Your task to perform on an android device: Do I have any events this weekend? Image 0: 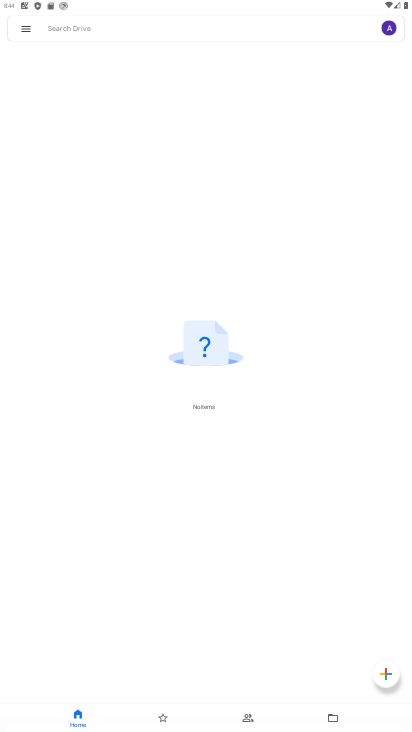
Step 0: click (138, 589)
Your task to perform on an android device: Do I have any events this weekend? Image 1: 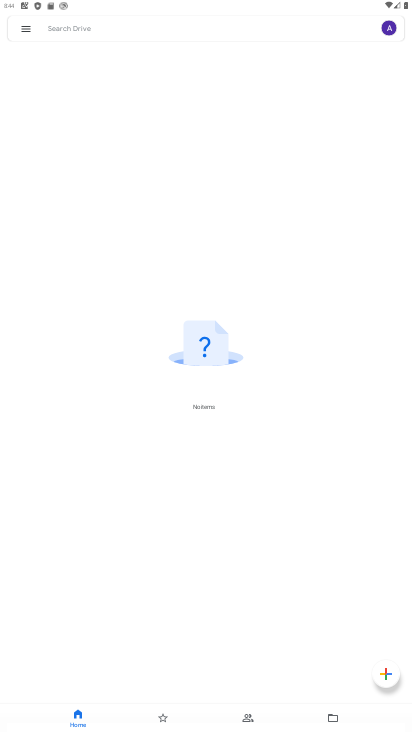
Step 1: press home button
Your task to perform on an android device: Do I have any events this weekend? Image 2: 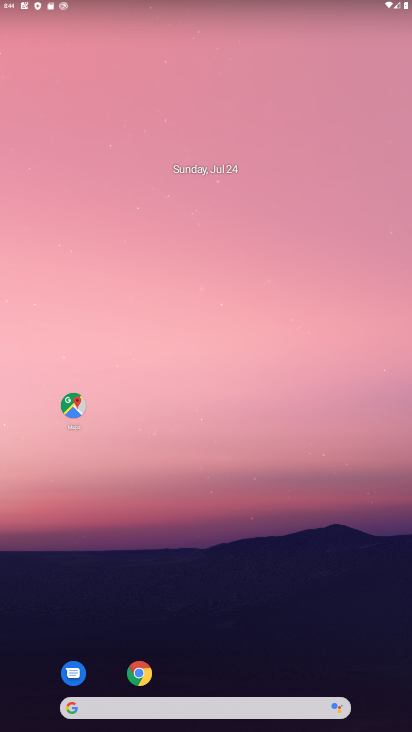
Step 2: drag from (180, 655) to (211, 94)
Your task to perform on an android device: Do I have any events this weekend? Image 3: 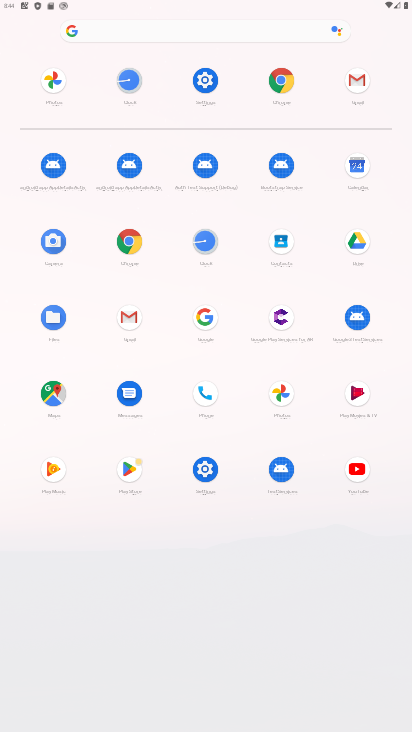
Step 3: click (354, 183)
Your task to perform on an android device: Do I have any events this weekend? Image 4: 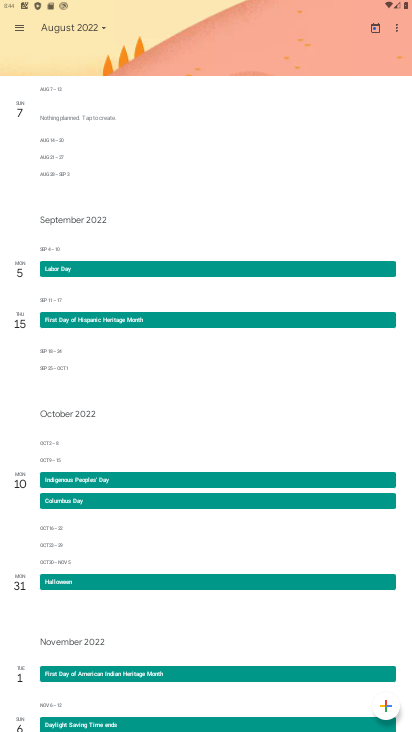
Step 4: click (54, 36)
Your task to perform on an android device: Do I have any events this weekend? Image 5: 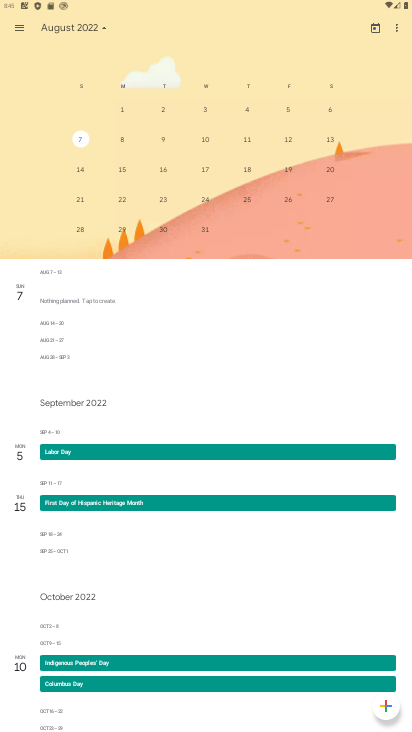
Step 5: click (15, 29)
Your task to perform on an android device: Do I have any events this weekend? Image 6: 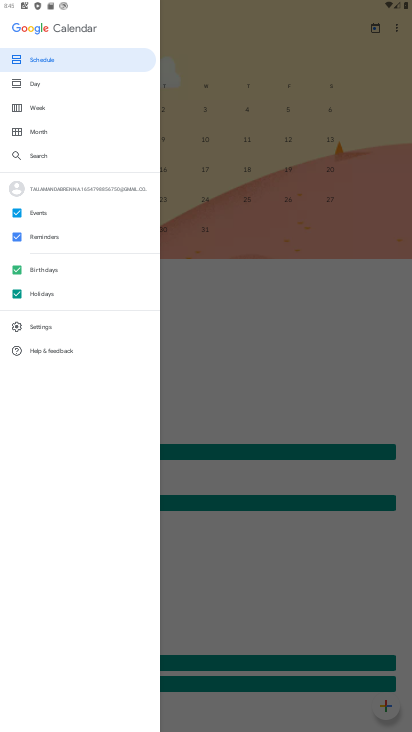
Step 6: click (42, 106)
Your task to perform on an android device: Do I have any events this weekend? Image 7: 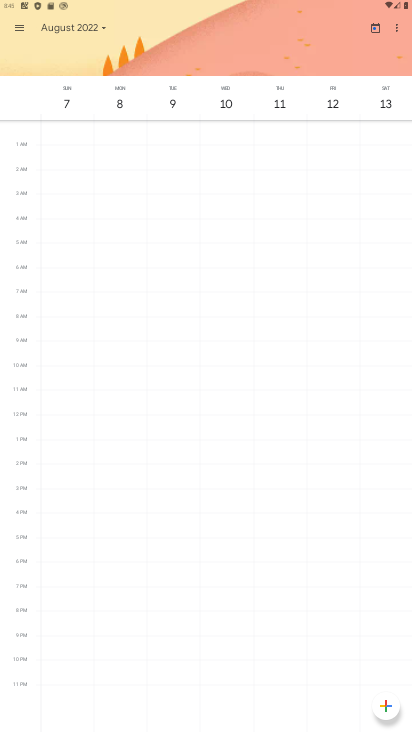
Step 7: click (82, 28)
Your task to perform on an android device: Do I have any events this weekend? Image 8: 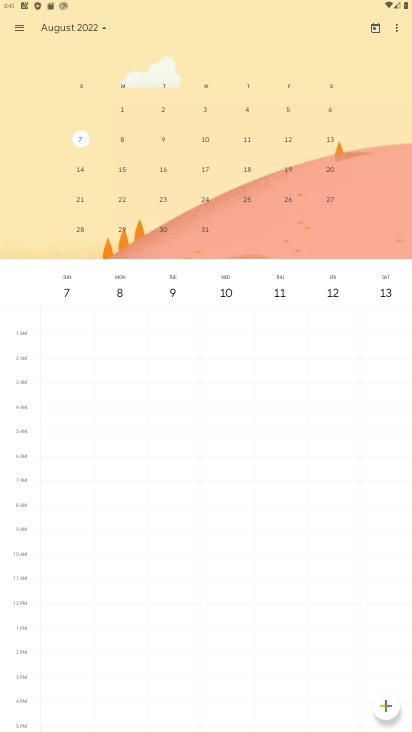
Step 8: click (356, 145)
Your task to perform on an android device: Do I have any events this weekend? Image 9: 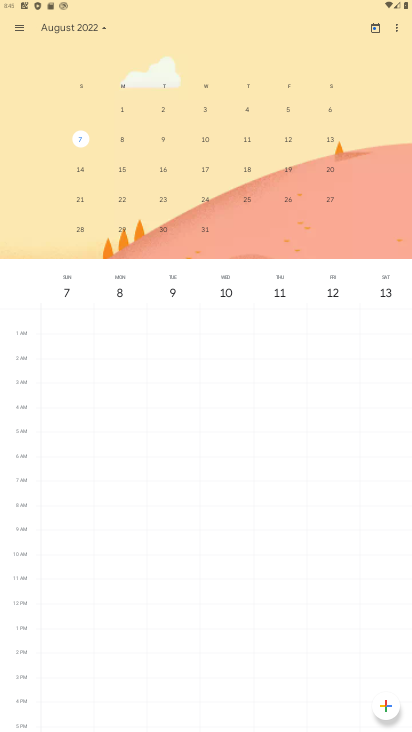
Step 9: drag from (205, 206) to (405, 213)
Your task to perform on an android device: Do I have any events this weekend? Image 10: 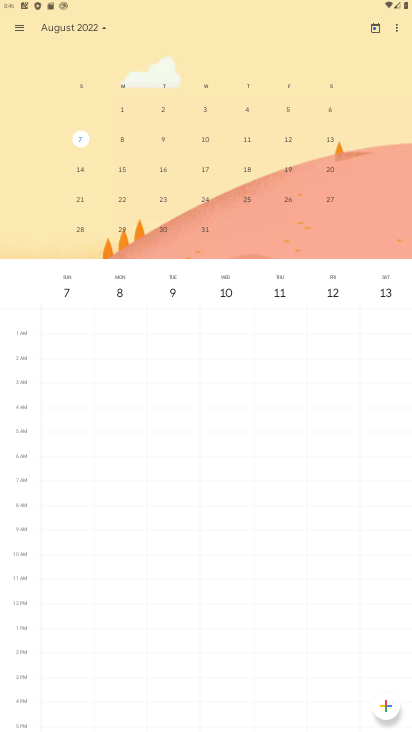
Step 10: click (243, 197)
Your task to perform on an android device: Do I have any events this weekend? Image 11: 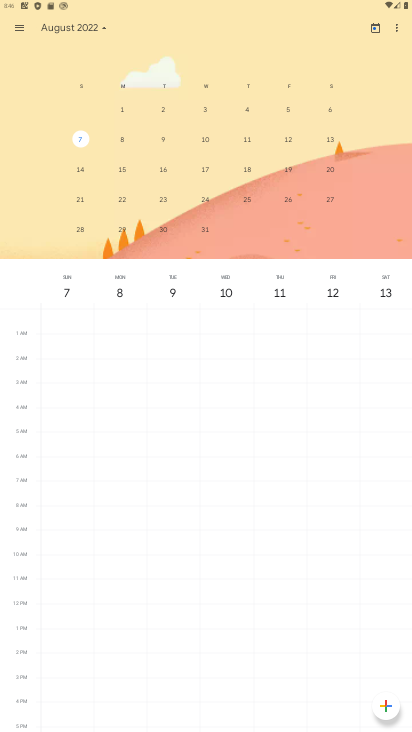
Step 11: task complete